Your task to perform on an android device: find snoozed emails in the gmail app Image 0: 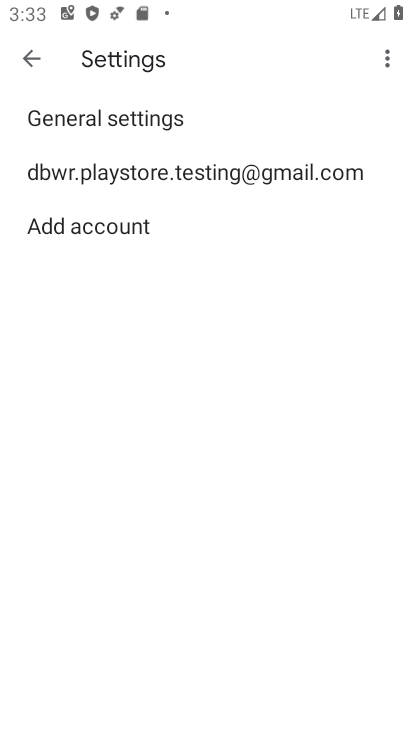
Step 0: press home button
Your task to perform on an android device: find snoozed emails in the gmail app Image 1: 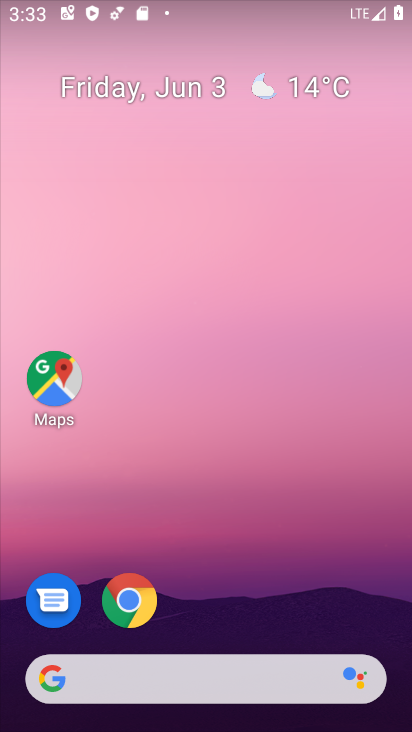
Step 1: drag from (283, 527) to (278, 50)
Your task to perform on an android device: find snoozed emails in the gmail app Image 2: 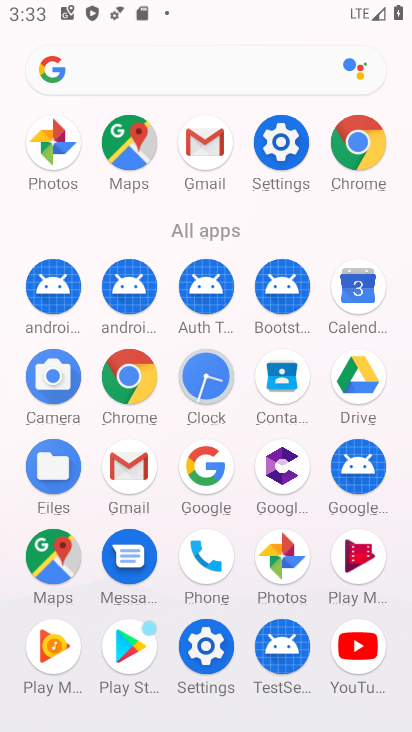
Step 2: click (201, 138)
Your task to perform on an android device: find snoozed emails in the gmail app Image 3: 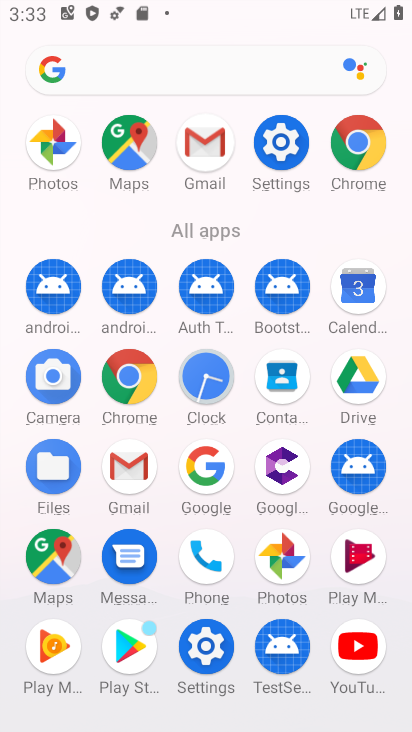
Step 3: click (201, 138)
Your task to perform on an android device: find snoozed emails in the gmail app Image 4: 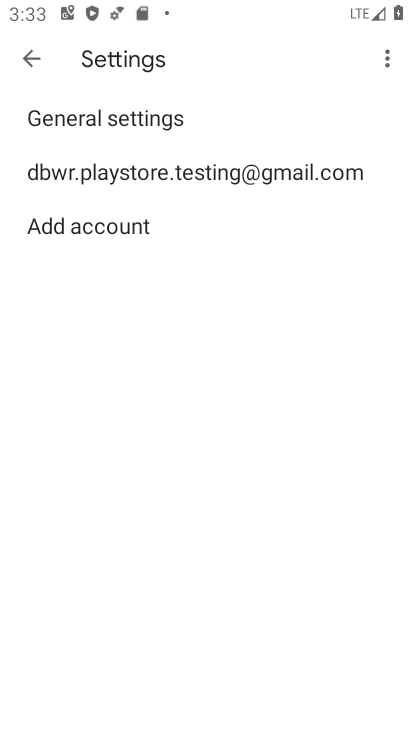
Step 4: click (25, 69)
Your task to perform on an android device: find snoozed emails in the gmail app Image 5: 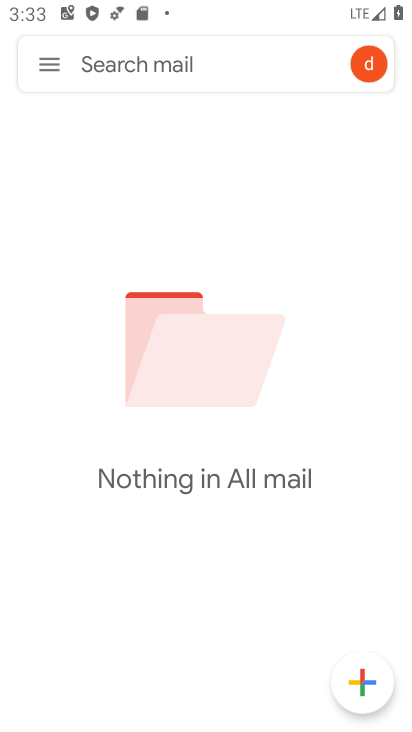
Step 5: click (58, 64)
Your task to perform on an android device: find snoozed emails in the gmail app Image 6: 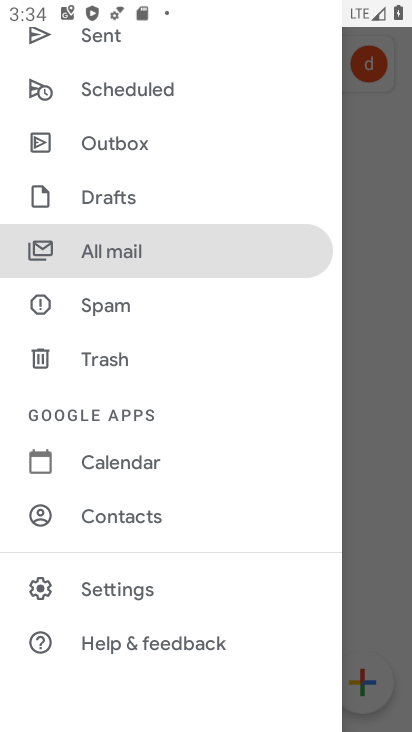
Step 6: drag from (112, 88) to (130, 246)
Your task to perform on an android device: find snoozed emails in the gmail app Image 7: 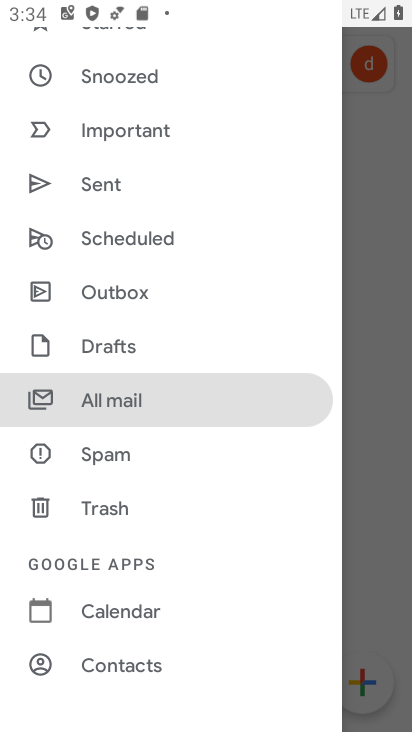
Step 7: click (98, 70)
Your task to perform on an android device: find snoozed emails in the gmail app Image 8: 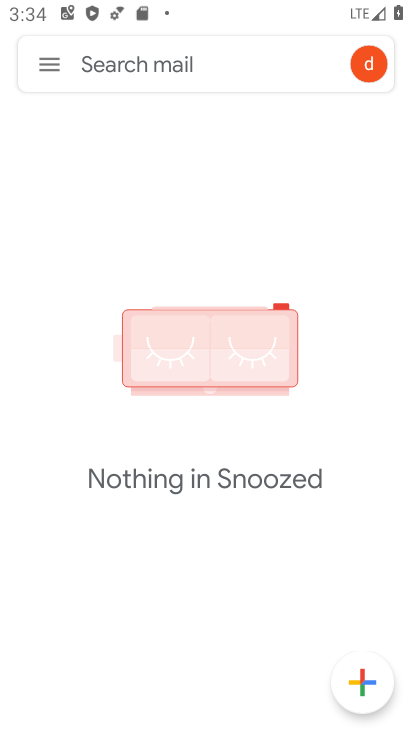
Step 8: task complete